Your task to perform on an android device: make emails show in primary in the gmail app Image 0: 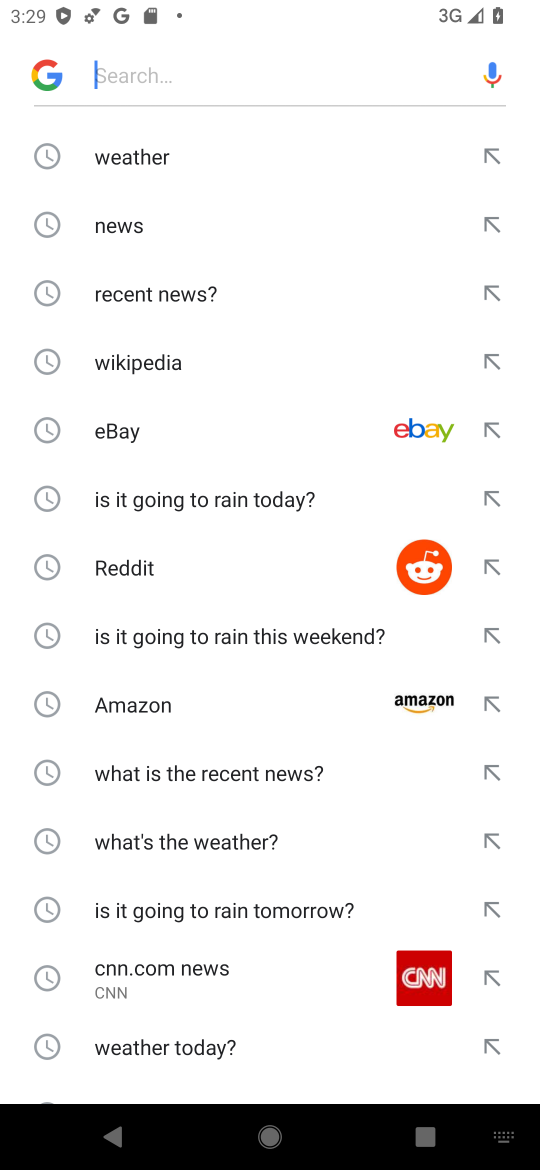
Step 0: press back button
Your task to perform on an android device: make emails show in primary in the gmail app Image 1: 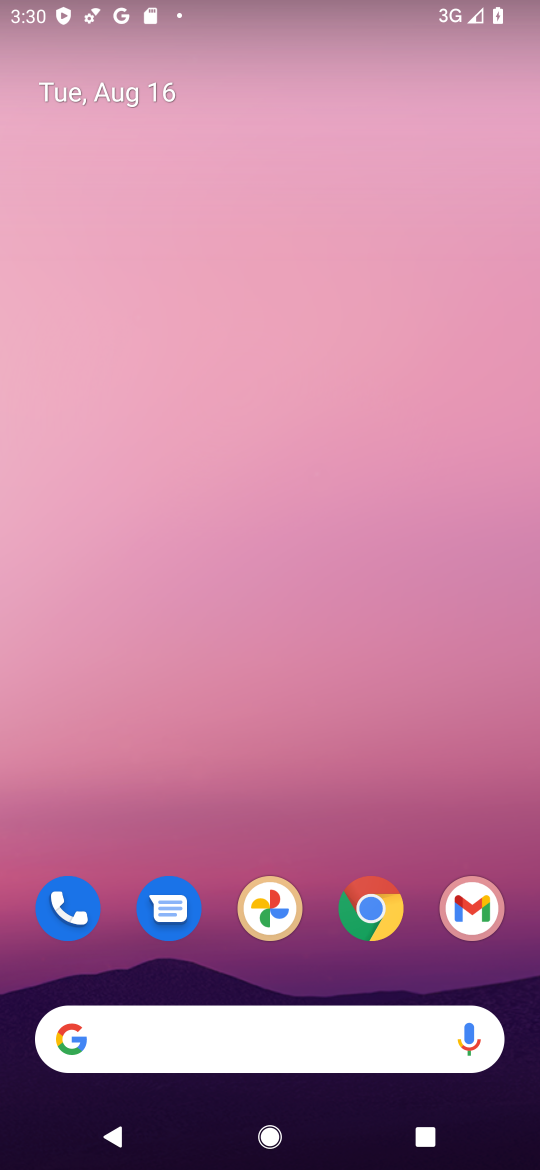
Step 1: click (463, 921)
Your task to perform on an android device: make emails show in primary in the gmail app Image 2: 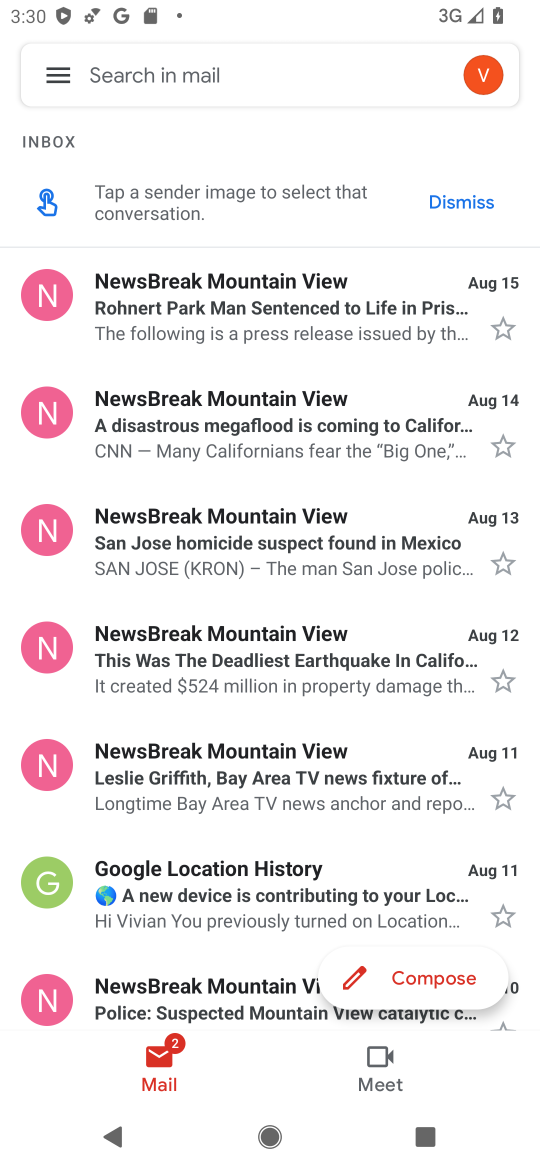
Step 2: click (54, 74)
Your task to perform on an android device: make emails show in primary in the gmail app Image 3: 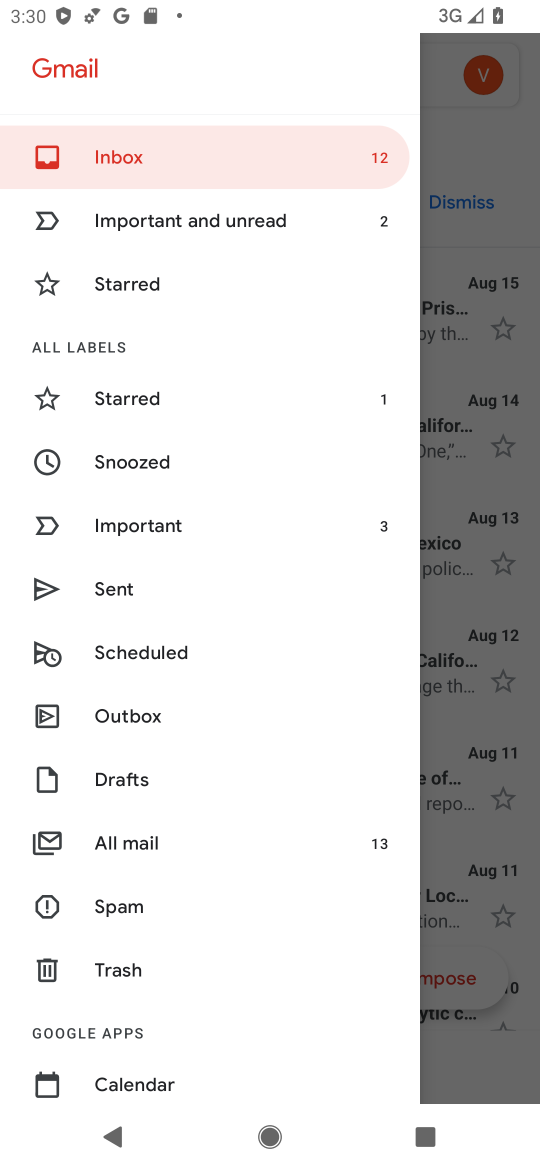
Step 3: drag from (149, 1026) to (226, 261)
Your task to perform on an android device: make emails show in primary in the gmail app Image 4: 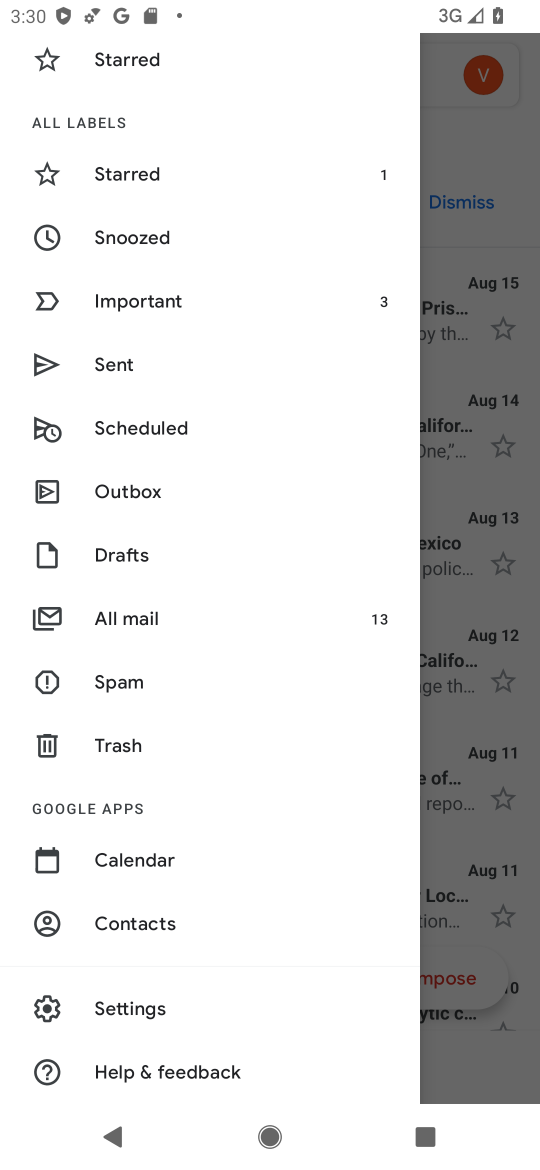
Step 4: click (120, 1004)
Your task to perform on an android device: make emails show in primary in the gmail app Image 5: 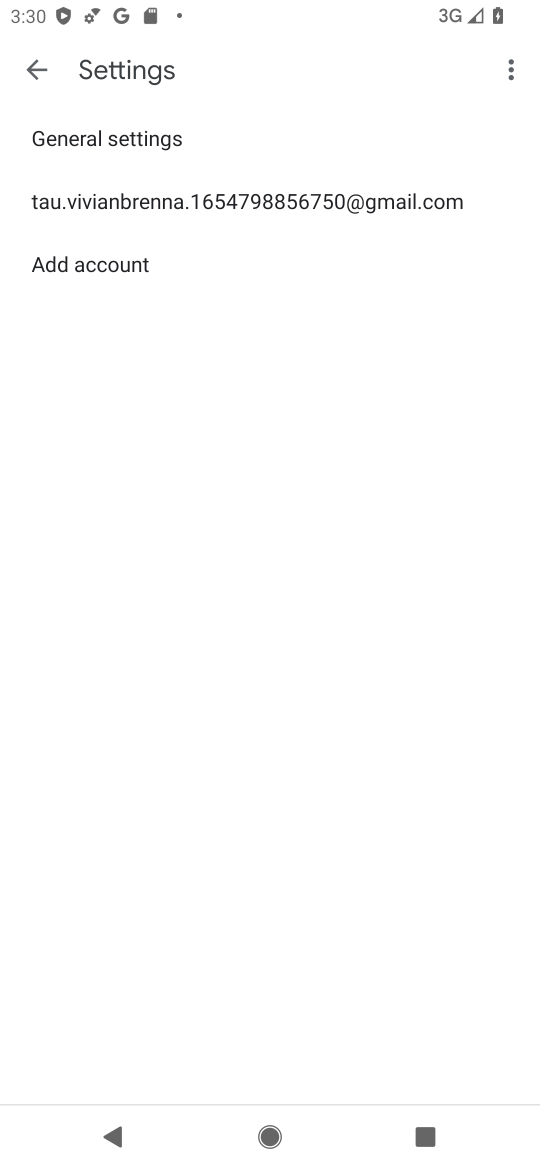
Step 5: click (145, 187)
Your task to perform on an android device: make emails show in primary in the gmail app Image 6: 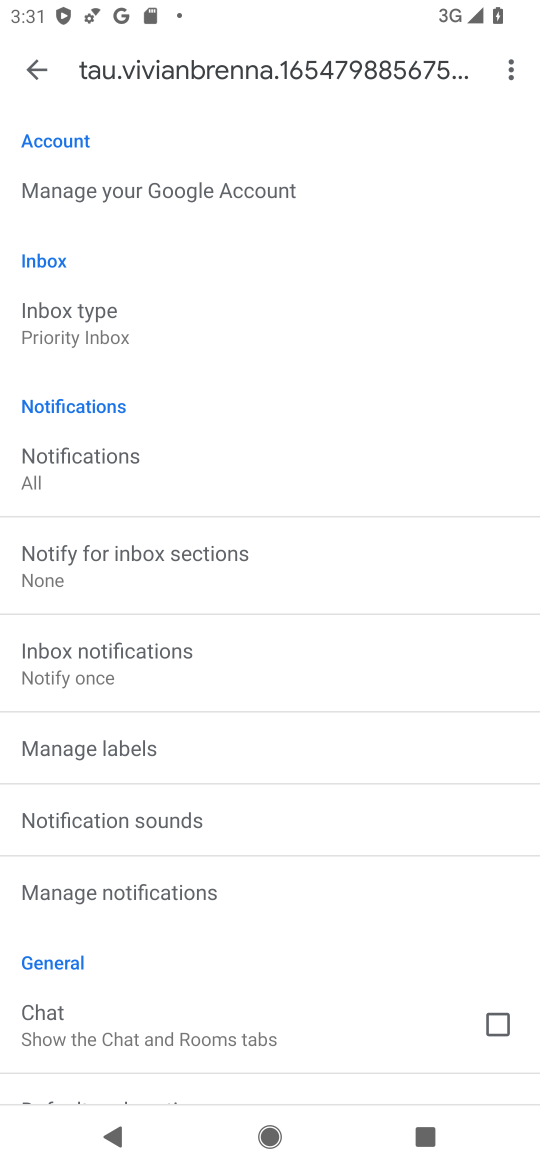
Step 6: task complete